Your task to perform on an android device: What's the weather going to be this weekend? Image 0: 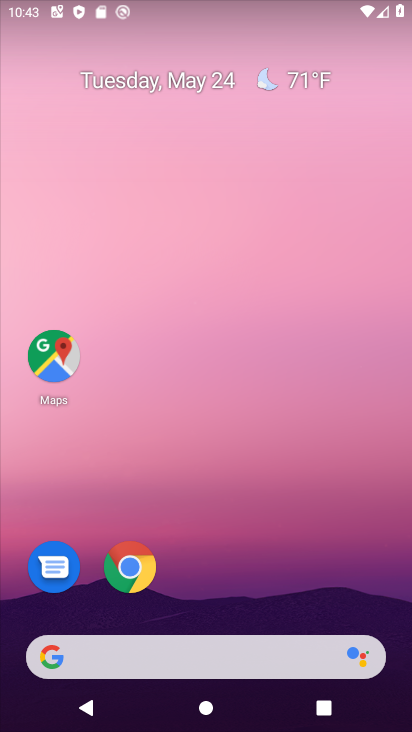
Step 0: click (294, 78)
Your task to perform on an android device: What's the weather going to be this weekend? Image 1: 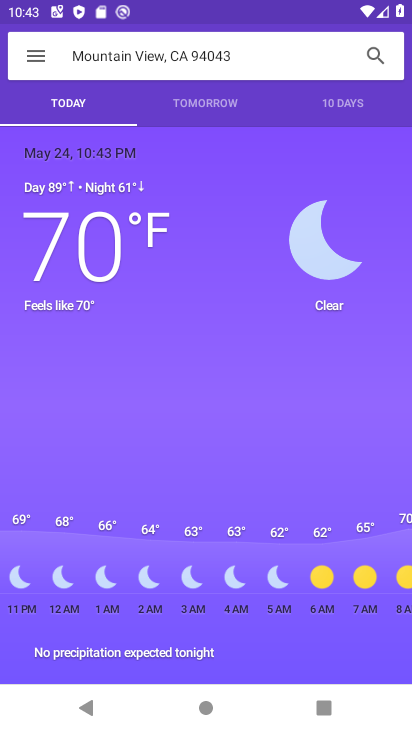
Step 1: click (339, 101)
Your task to perform on an android device: What's the weather going to be this weekend? Image 2: 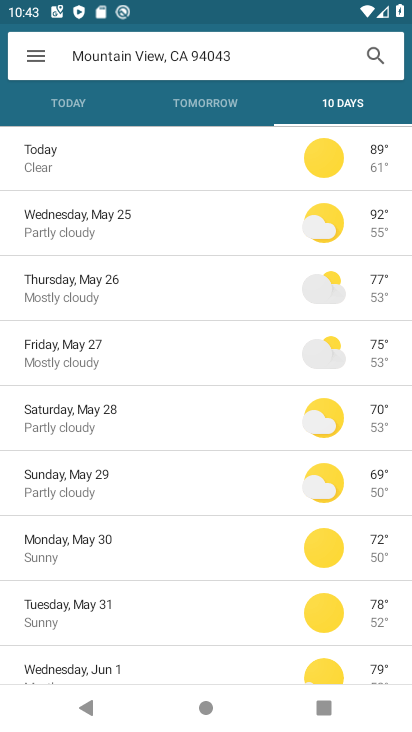
Step 2: task complete